Your task to perform on an android device: show emergency info Image 0: 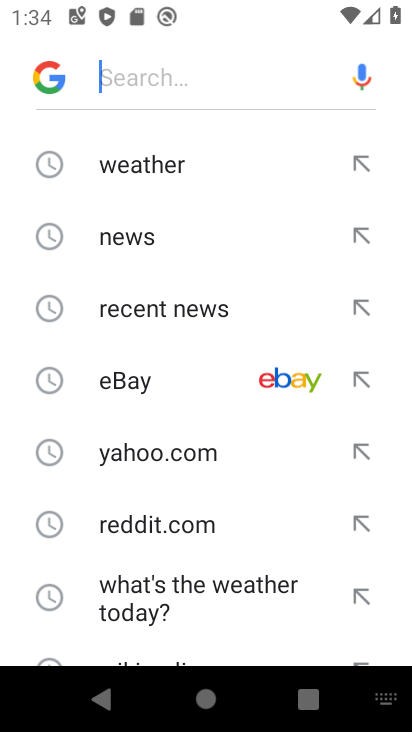
Step 0: press home button
Your task to perform on an android device: show emergency info Image 1: 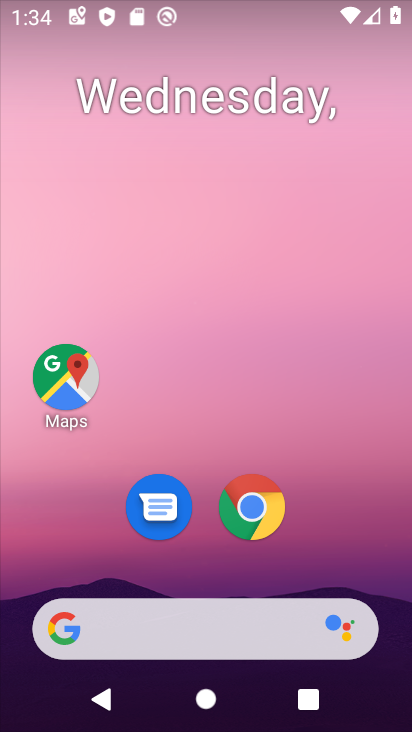
Step 1: drag from (359, 545) to (304, 191)
Your task to perform on an android device: show emergency info Image 2: 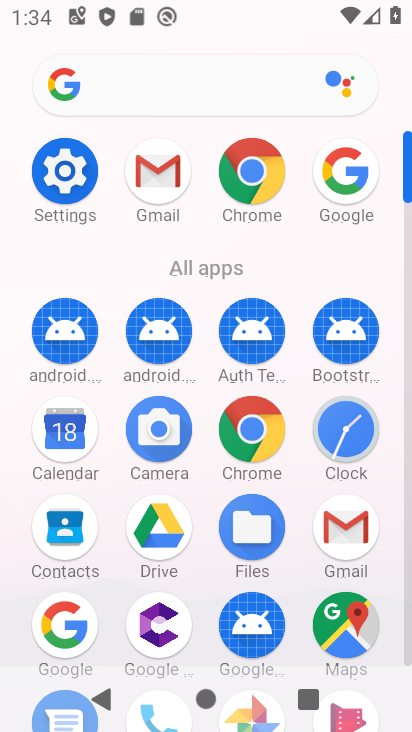
Step 2: click (51, 176)
Your task to perform on an android device: show emergency info Image 3: 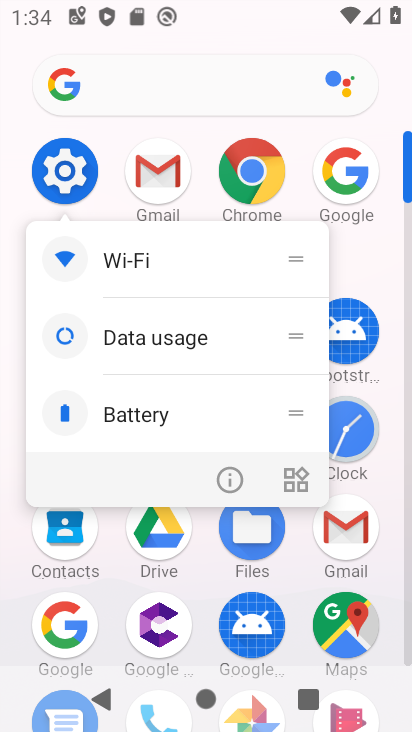
Step 3: click (51, 176)
Your task to perform on an android device: show emergency info Image 4: 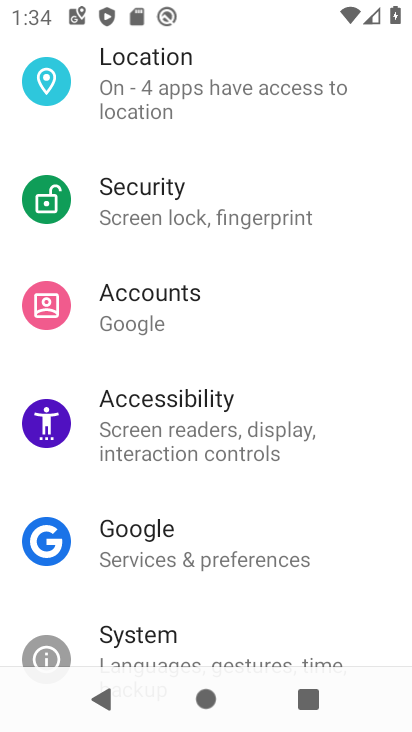
Step 4: drag from (223, 577) to (234, 236)
Your task to perform on an android device: show emergency info Image 5: 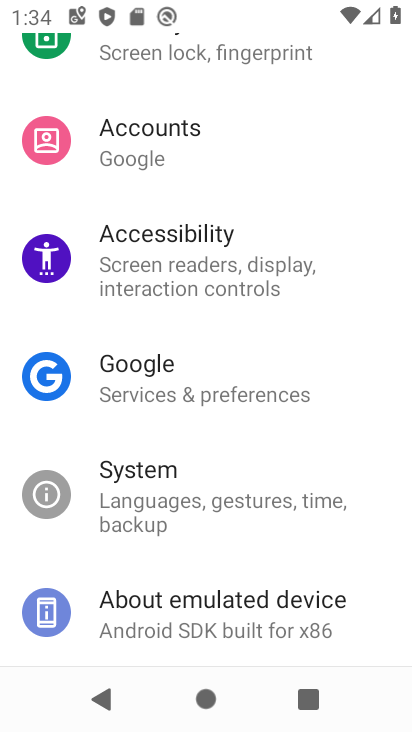
Step 5: drag from (287, 616) to (315, 252)
Your task to perform on an android device: show emergency info Image 6: 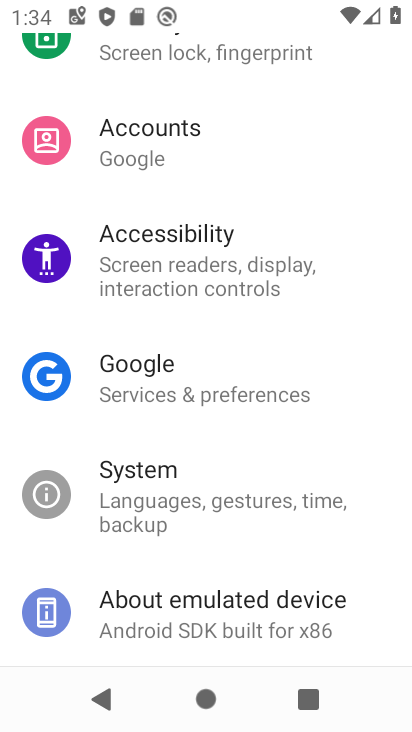
Step 6: click (251, 622)
Your task to perform on an android device: show emergency info Image 7: 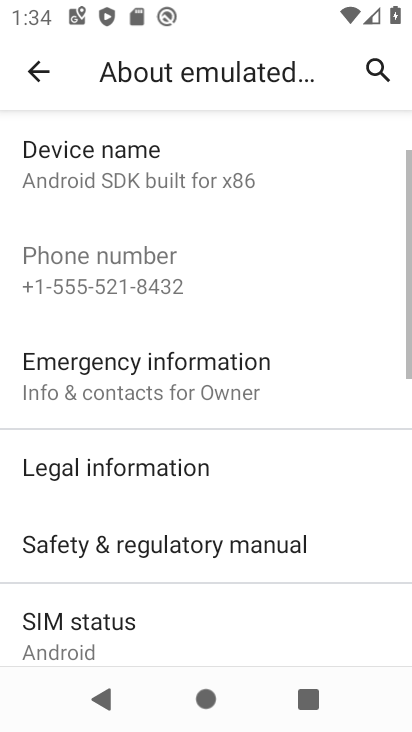
Step 7: click (192, 376)
Your task to perform on an android device: show emergency info Image 8: 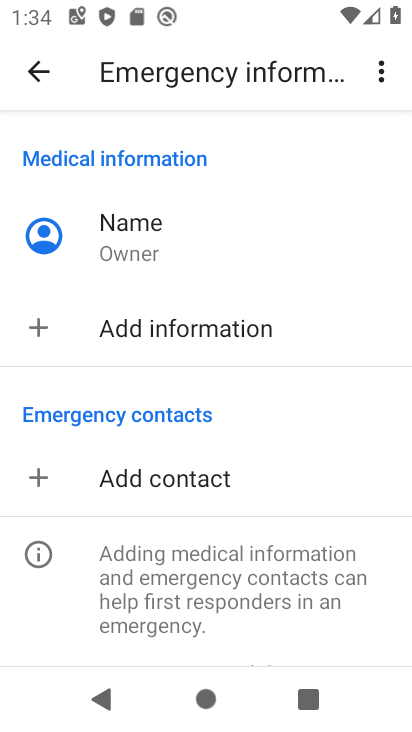
Step 8: task complete